Your task to perform on an android device: turn off notifications settings in the gmail app Image 0: 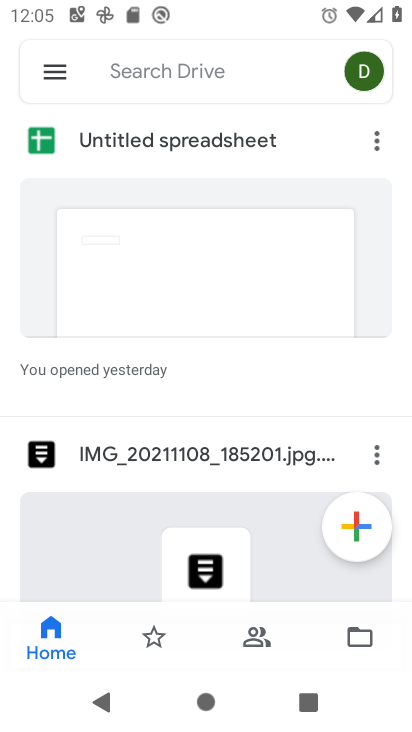
Step 0: press home button
Your task to perform on an android device: turn off notifications settings in the gmail app Image 1: 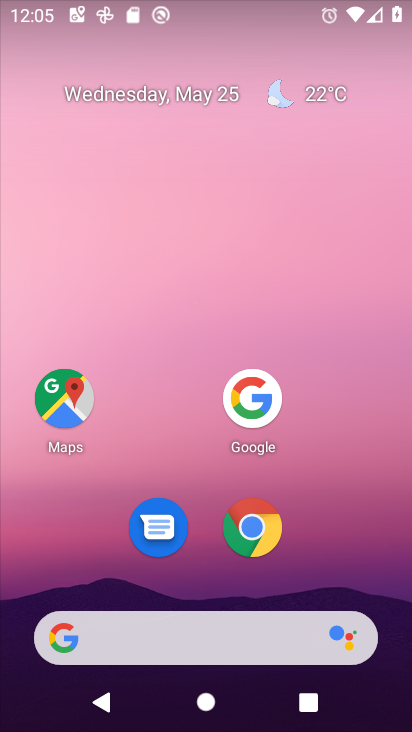
Step 1: drag from (168, 616) to (299, 175)
Your task to perform on an android device: turn off notifications settings in the gmail app Image 2: 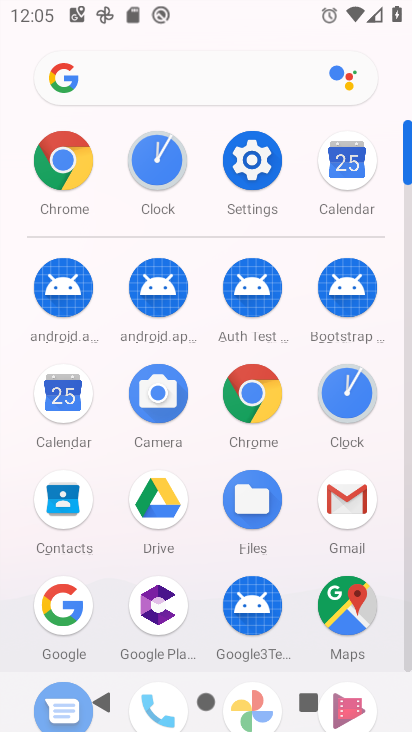
Step 2: click (345, 499)
Your task to perform on an android device: turn off notifications settings in the gmail app Image 3: 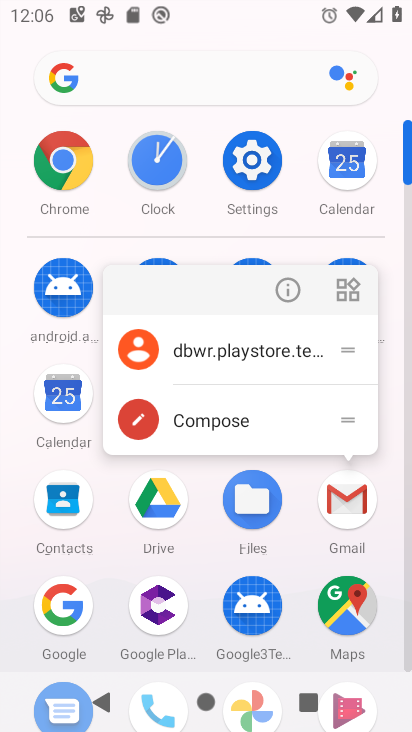
Step 3: click (344, 497)
Your task to perform on an android device: turn off notifications settings in the gmail app Image 4: 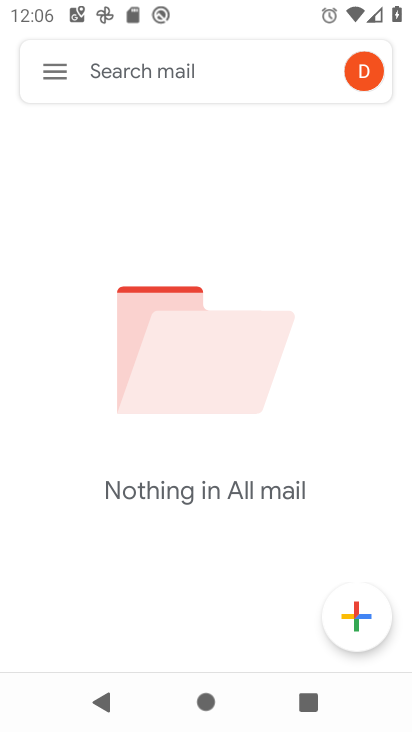
Step 4: click (55, 70)
Your task to perform on an android device: turn off notifications settings in the gmail app Image 5: 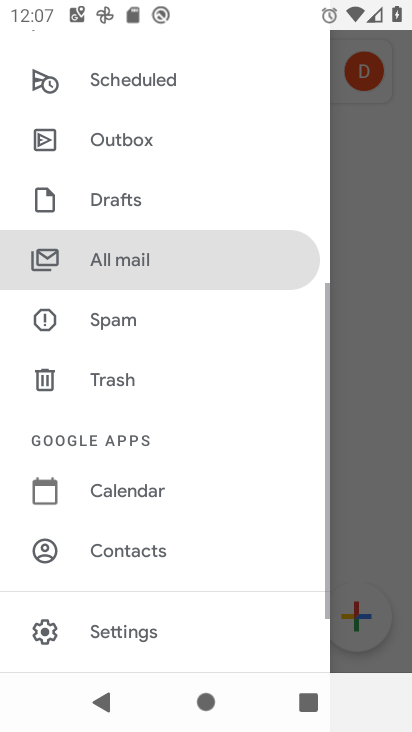
Step 5: drag from (195, 592) to (282, 263)
Your task to perform on an android device: turn off notifications settings in the gmail app Image 6: 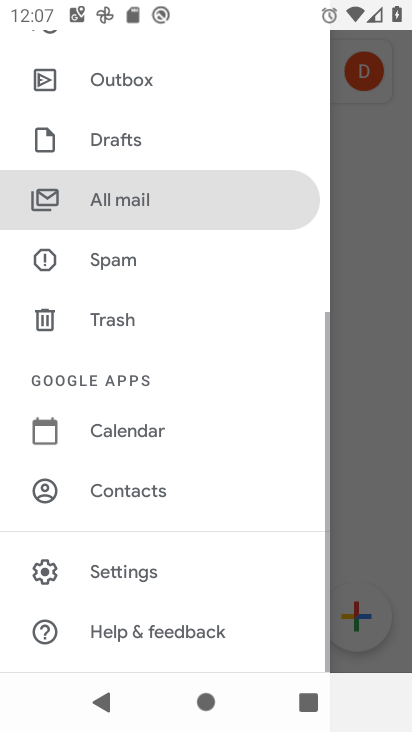
Step 6: click (124, 566)
Your task to perform on an android device: turn off notifications settings in the gmail app Image 7: 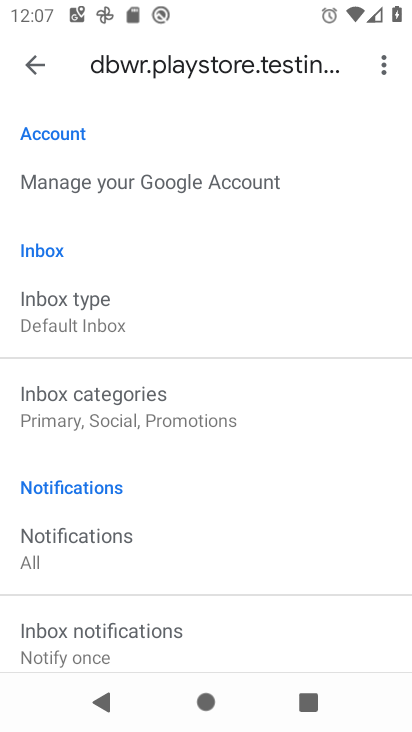
Step 7: click (94, 550)
Your task to perform on an android device: turn off notifications settings in the gmail app Image 8: 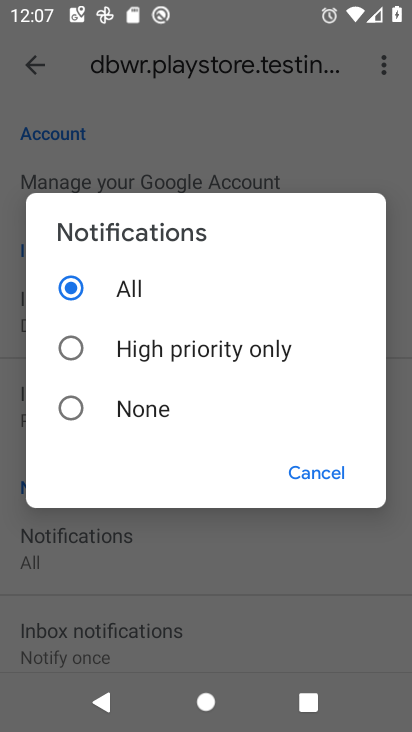
Step 8: click (74, 413)
Your task to perform on an android device: turn off notifications settings in the gmail app Image 9: 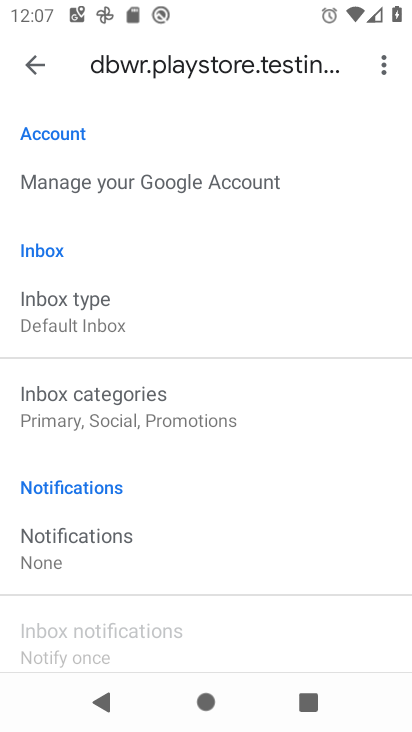
Step 9: task complete